Your task to perform on an android device: Go to CNN.com Image 0: 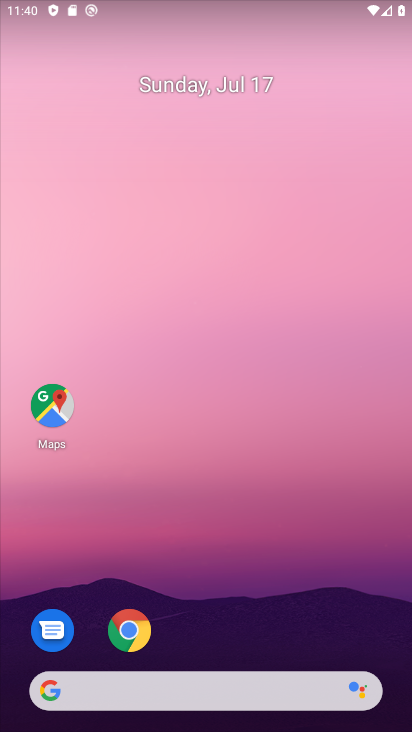
Step 0: drag from (216, 691) to (187, 60)
Your task to perform on an android device: Go to CNN.com Image 1: 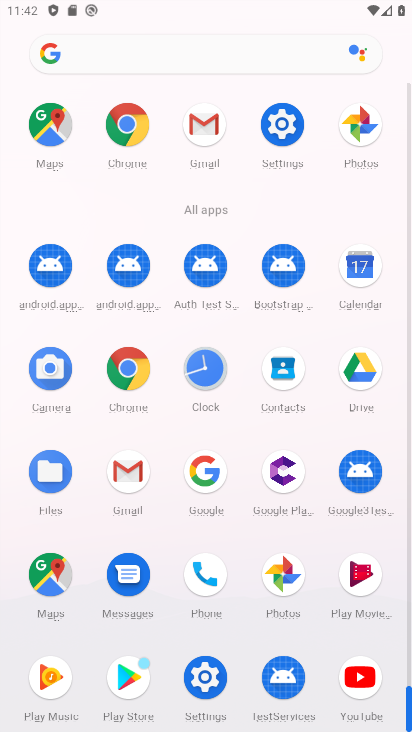
Step 1: click (124, 126)
Your task to perform on an android device: Go to CNN.com Image 2: 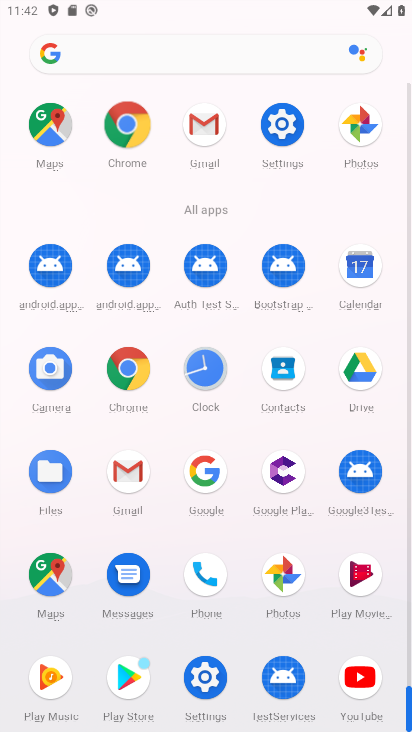
Step 2: click (123, 125)
Your task to perform on an android device: Go to CNN.com Image 3: 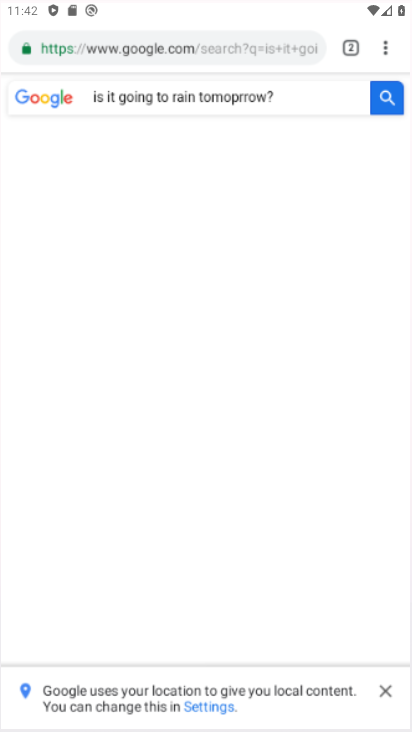
Step 3: click (122, 124)
Your task to perform on an android device: Go to CNN.com Image 4: 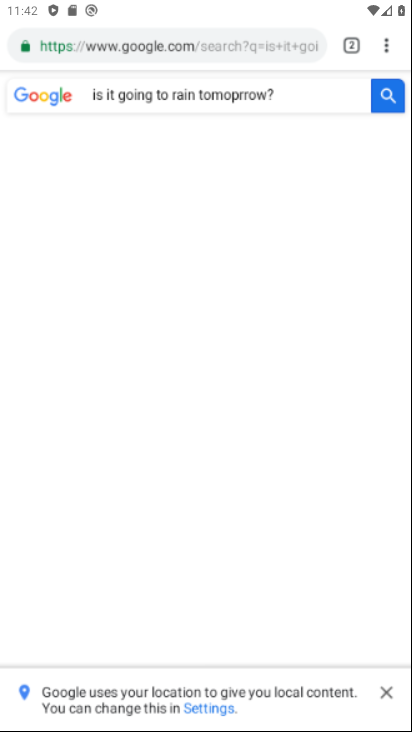
Step 4: click (122, 124)
Your task to perform on an android device: Go to CNN.com Image 5: 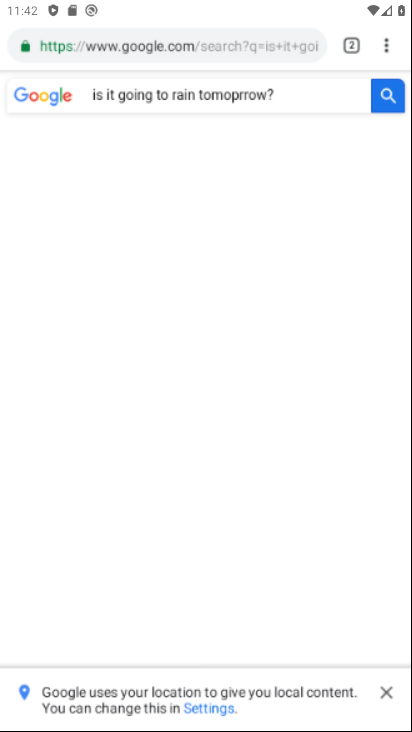
Step 5: click (122, 124)
Your task to perform on an android device: Go to CNN.com Image 6: 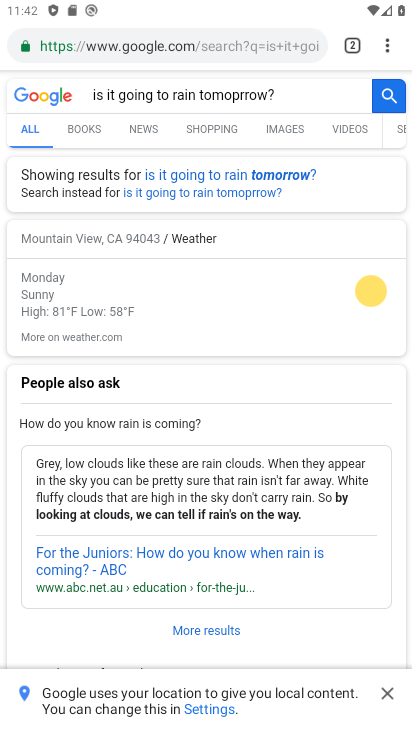
Step 6: click (384, 41)
Your task to perform on an android device: Go to CNN.com Image 7: 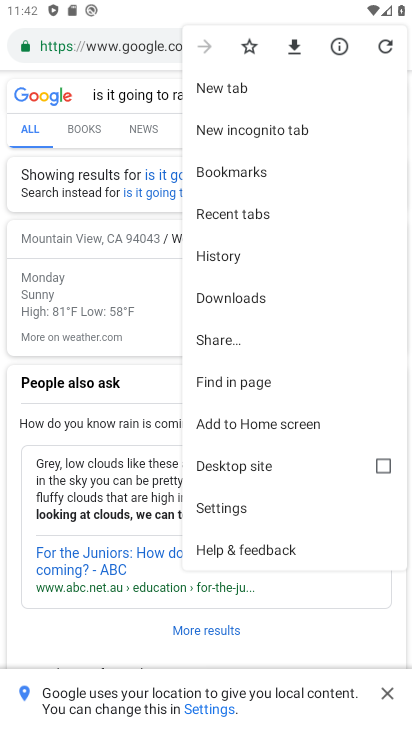
Step 7: click (191, 87)
Your task to perform on an android device: Go to CNN.com Image 8: 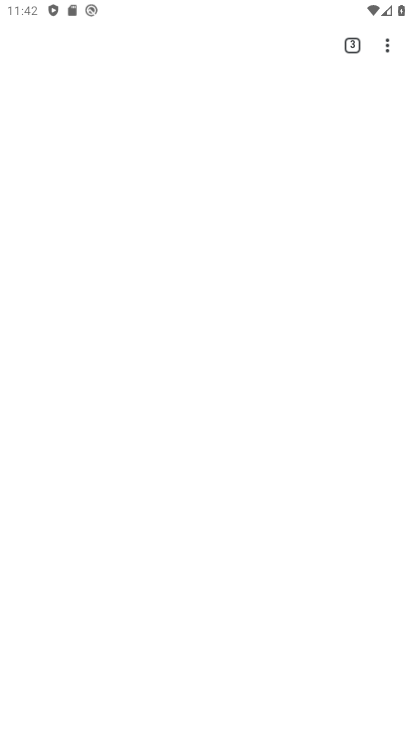
Step 8: click (201, 83)
Your task to perform on an android device: Go to CNN.com Image 9: 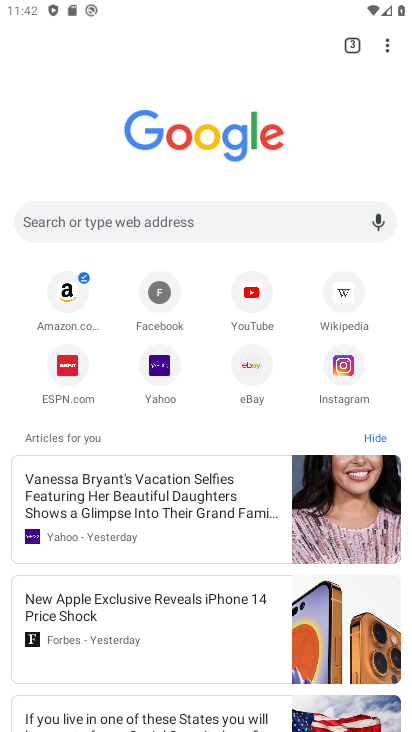
Step 9: click (95, 229)
Your task to perform on an android device: Go to CNN.com Image 10: 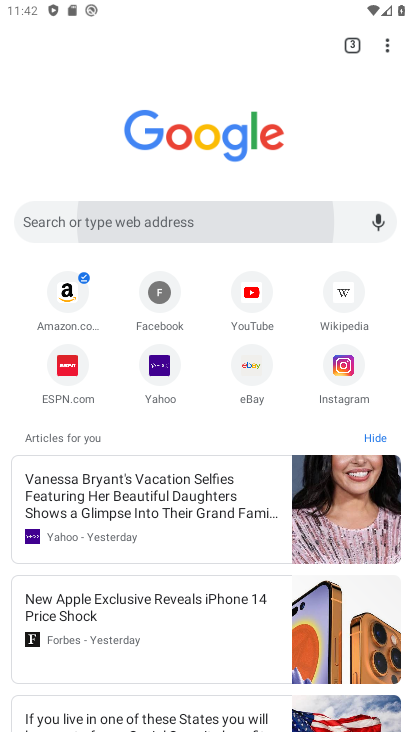
Step 10: click (94, 230)
Your task to perform on an android device: Go to CNN.com Image 11: 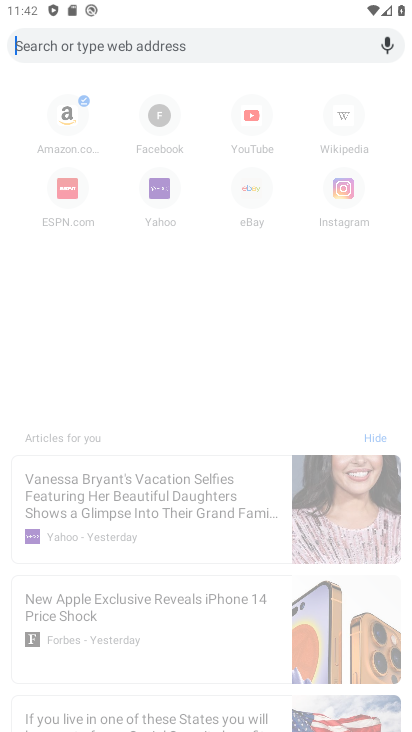
Step 11: click (94, 230)
Your task to perform on an android device: Go to CNN.com Image 12: 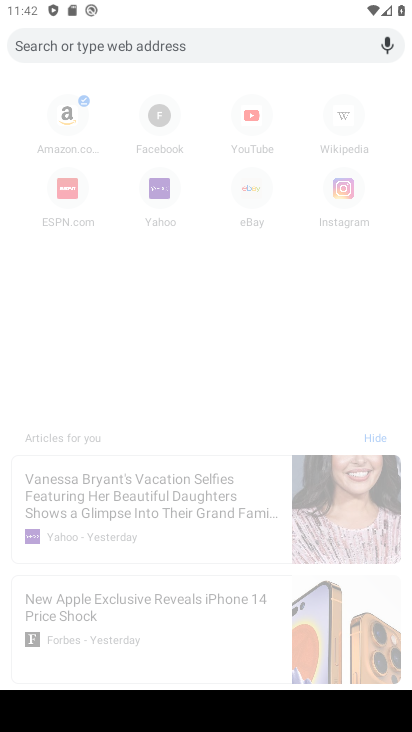
Step 12: click (94, 230)
Your task to perform on an android device: Go to CNN.com Image 13: 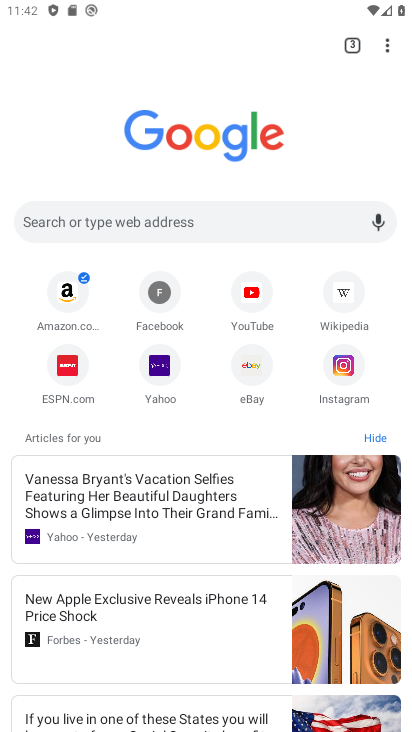
Step 13: type "CNN.com"
Your task to perform on an android device: Go to CNN.com Image 14: 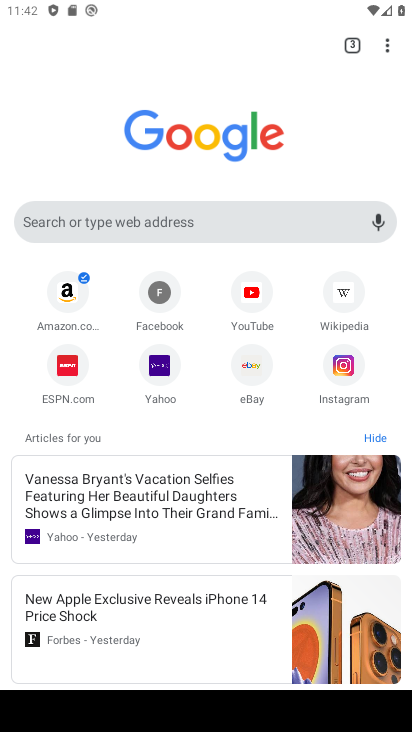
Step 14: click (78, 230)
Your task to perform on an android device: Go to CNN.com Image 15: 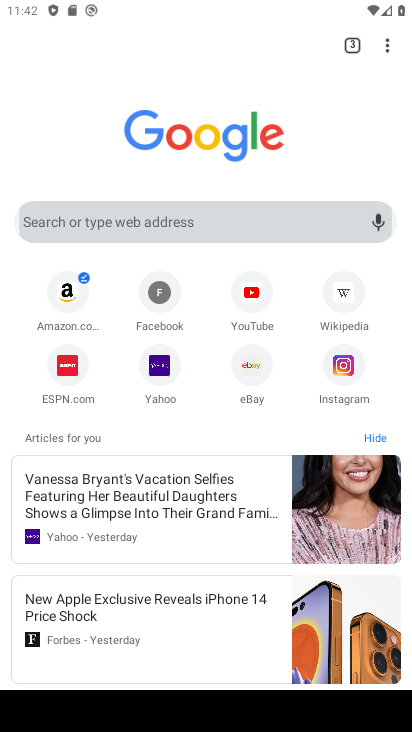
Step 15: click (78, 230)
Your task to perform on an android device: Go to CNN.com Image 16: 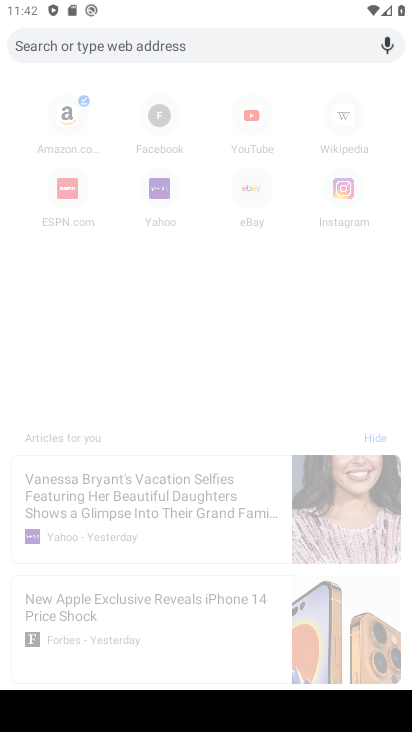
Step 16: type "CNN.com"
Your task to perform on an android device: Go to CNN.com Image 17: 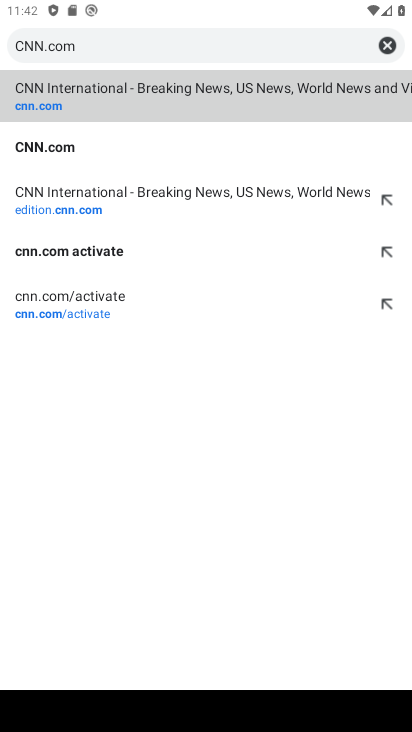
Step 17: click (53, 159)
Your task to perform on an android device: Go to CNN.com Image 18: 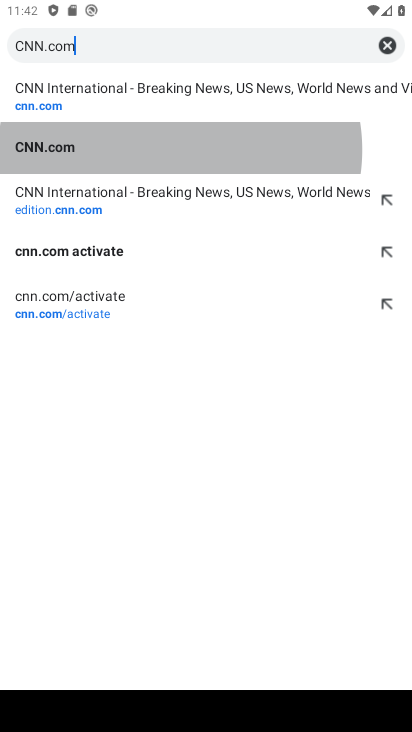
Step 18: click (53, 159)
Your task to perform on an android device: Go to CNN.com Image 19: 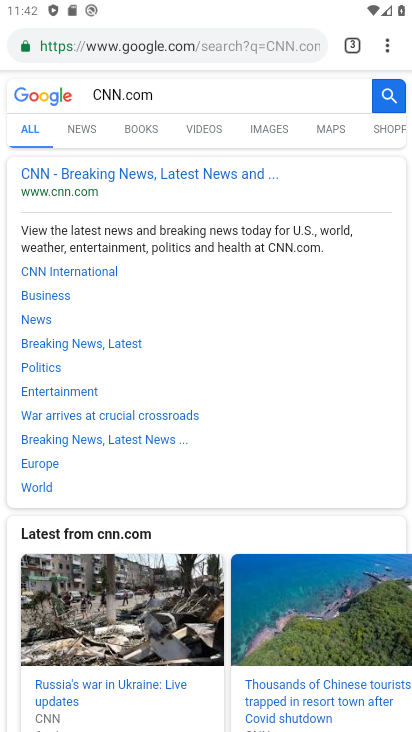
Step 19: click (93, 176)
Your task to perform on an android device: Go to CNN.com Image 20: 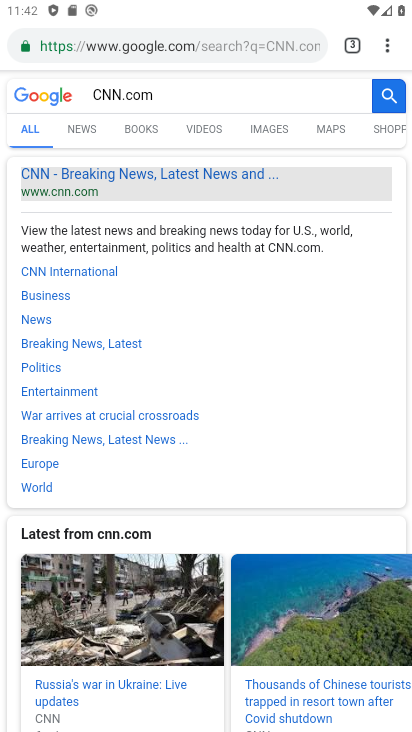
Step 20: click (93, 176)
Your task to perform on an android device: Go to CNN.com Image 21: 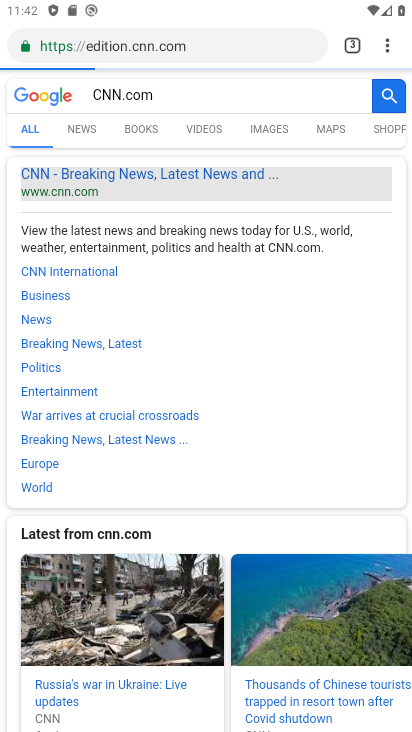
Step 21: click (93, 178)
Your task to perform on an android device: Go to CNN.com Image 22: 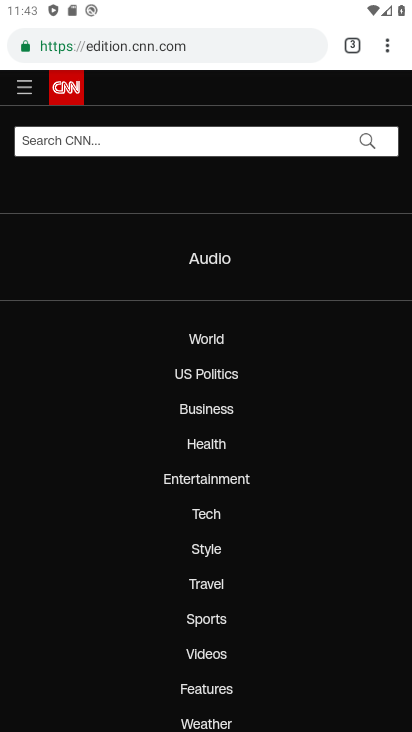
Step 22: task complete